Your task to perform on an android device: Go to Google Image 0: 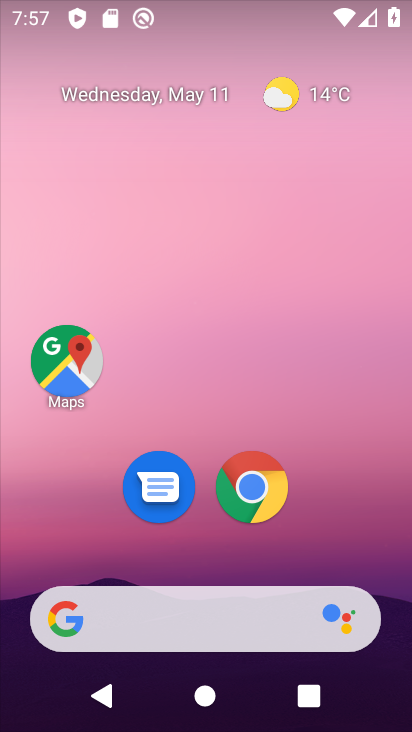
Step 0: drag from (203, 603) to (223, 281)
Your task to perform on an android device: Go to Google Image 1: 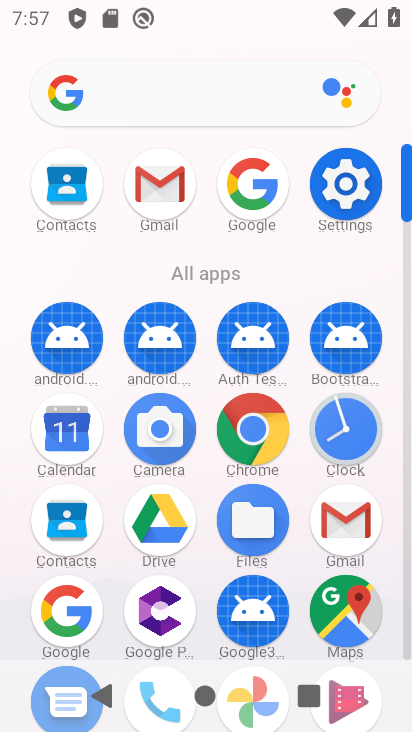
Step 1: click (59, 607)
Your task to perform on an android device: Go to Google Image 2: 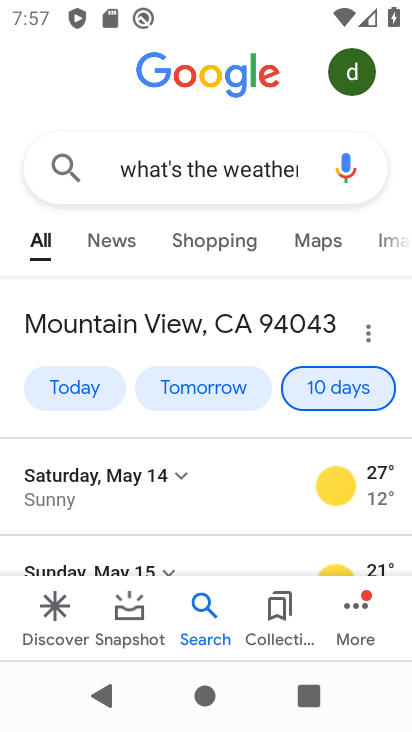
Step 2: task complete